Your task to perform on an android device: Show me popular games on the Play Store Image 0: 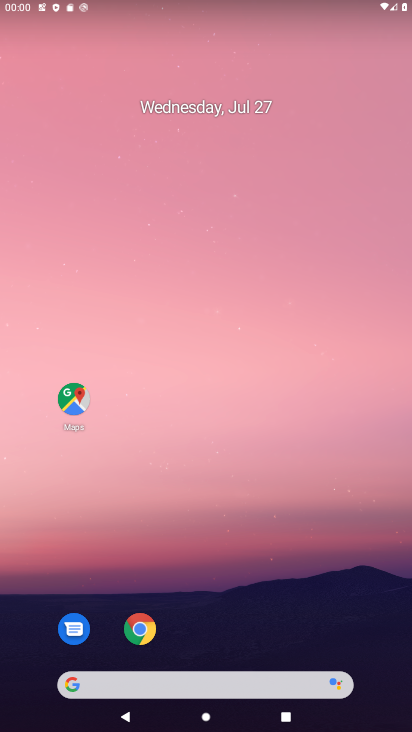
Step 0: drag from (226, 720) to (227, 306)
Your task to perform on an android device: Show me popular games on the Play Store Image 1: 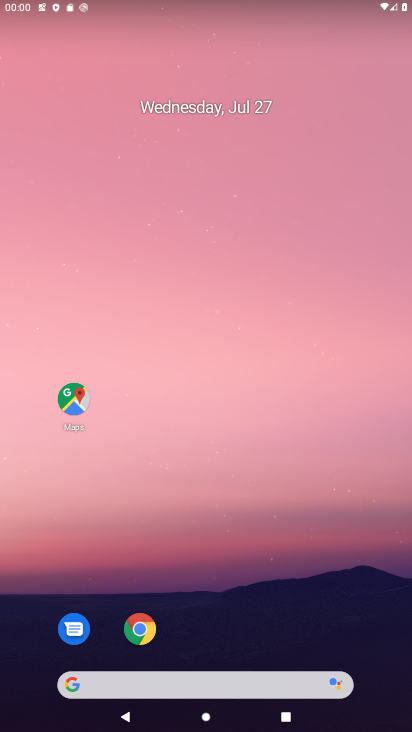
Step 1: drag from (231, 723) to (208, 232)
Your task to perform on an android device: Show me popular games on the Play Store Image 2: 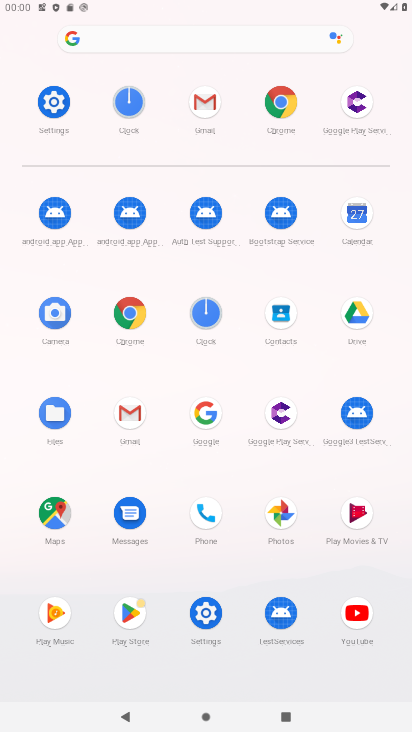
Step 2: click (125, 614)
Your task to perform on an android device: Show me popular games on the Play Store Image 3: 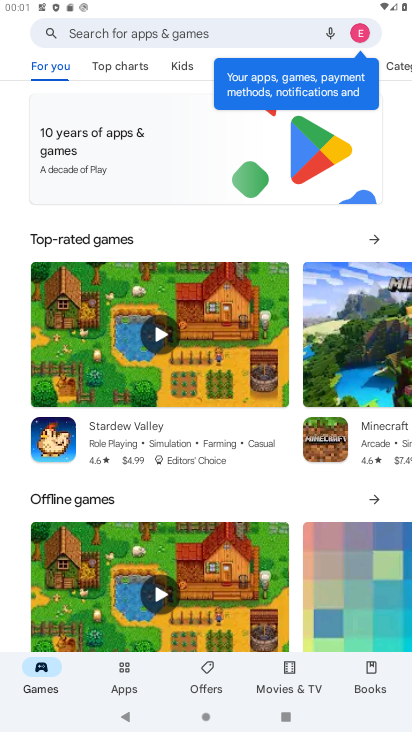
Step 3: drag from (247, 627) to (249, 279)
Your task to perform on an android device: Show me popular games on the Play Store Image 4: 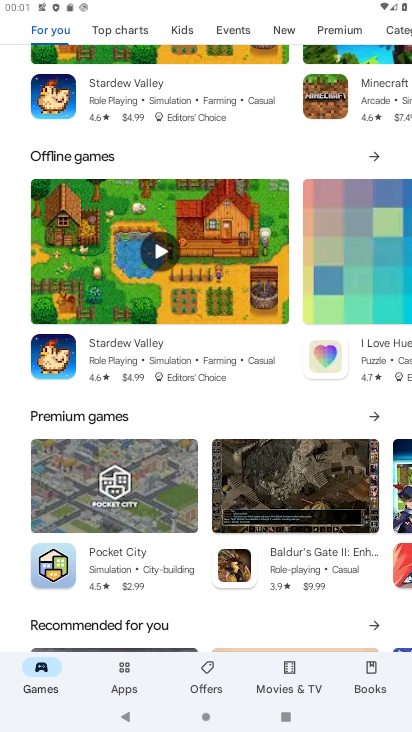
Step 4: drag from (137, 614) to (161, 253)
Your task to perform on an android device: Show me popular games on the Play Store Image 5: 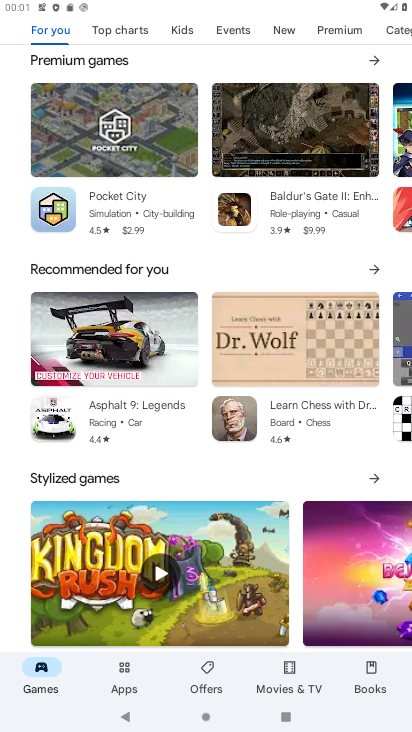
Step 5: drag from (183, 638) to (184, 299)
Your task to perform on an android device: Show me popular games on the Play Store Image 6: 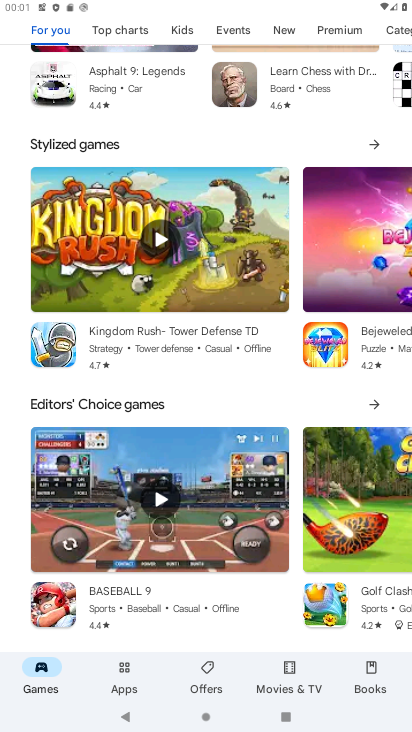
Step 6: drag from (247, 629) to (247, 218)
Your task to perform on an android device: Show me popular games on the Play Store Image 7: 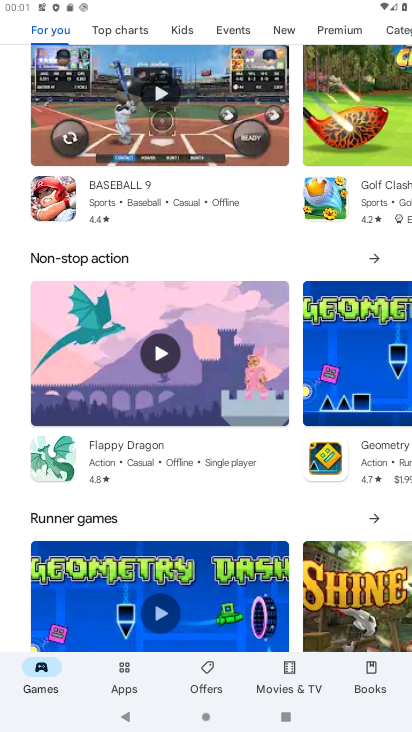
Step 7: drag from (250, 630) to (250, 214)
Your task to perform on an android device: Show me popular games on the Play Store Image 8: 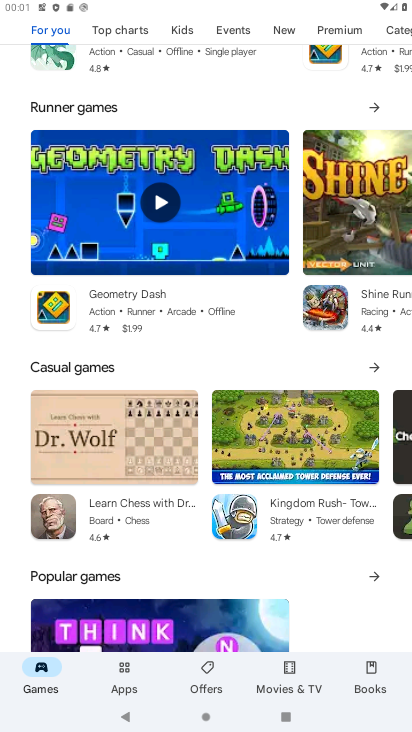
Step 8: click (232, 579)
Your task to perform on an android device: Show me popular games on the Play Store Image 9: 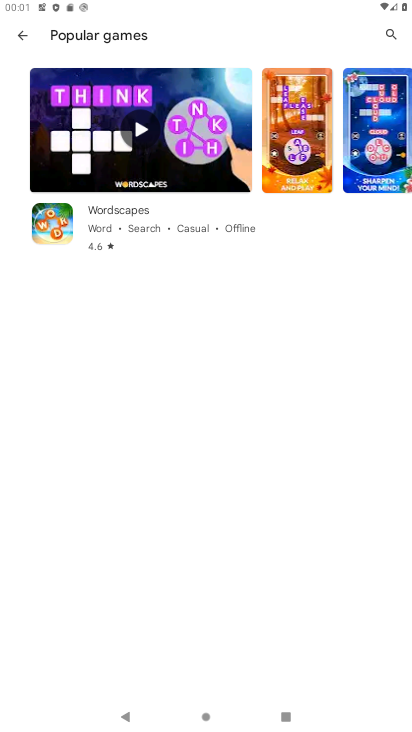
Step 9: task complete